Your task to perform on an android device: open app "Spotify: Music and Podcasts" (install if not already installed) Image 0: 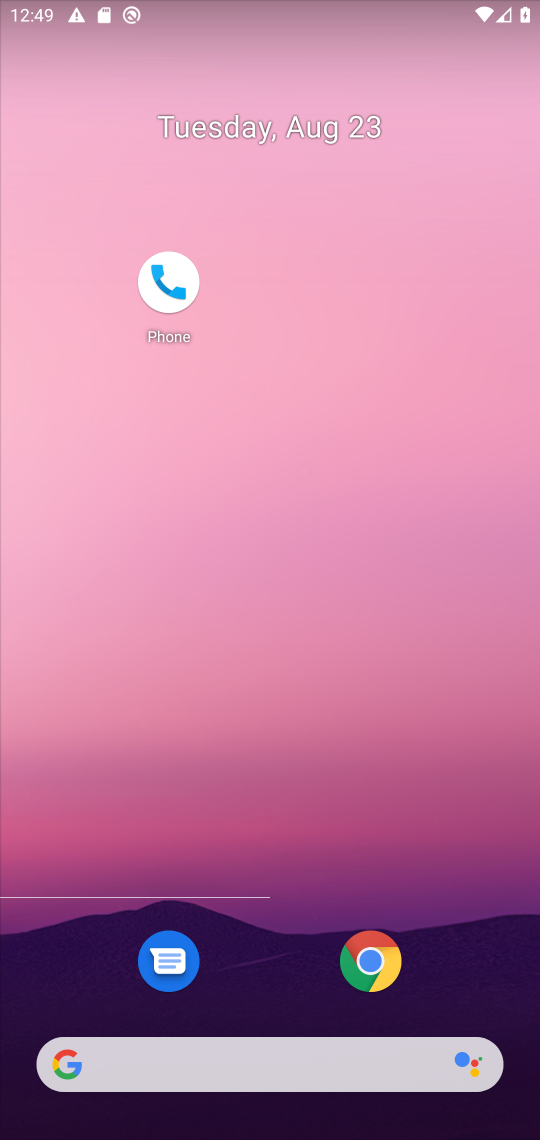
Step 0: drag from (298, 1026) to (319, 177)
Your task to perform on an android device: open app "Spotify: Music and Podcasts" (install if not already installed) Image 1: 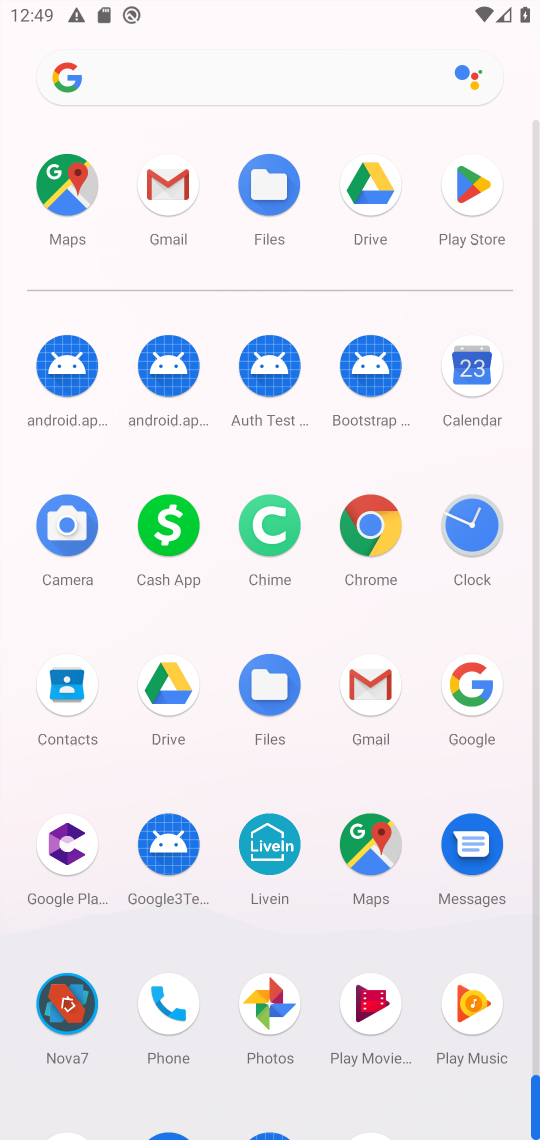
Step 1: click (440, 249)
Your task to perform on an android device: open app "Spotify: Music and Podcasts" (install if not already installed) Image 2: 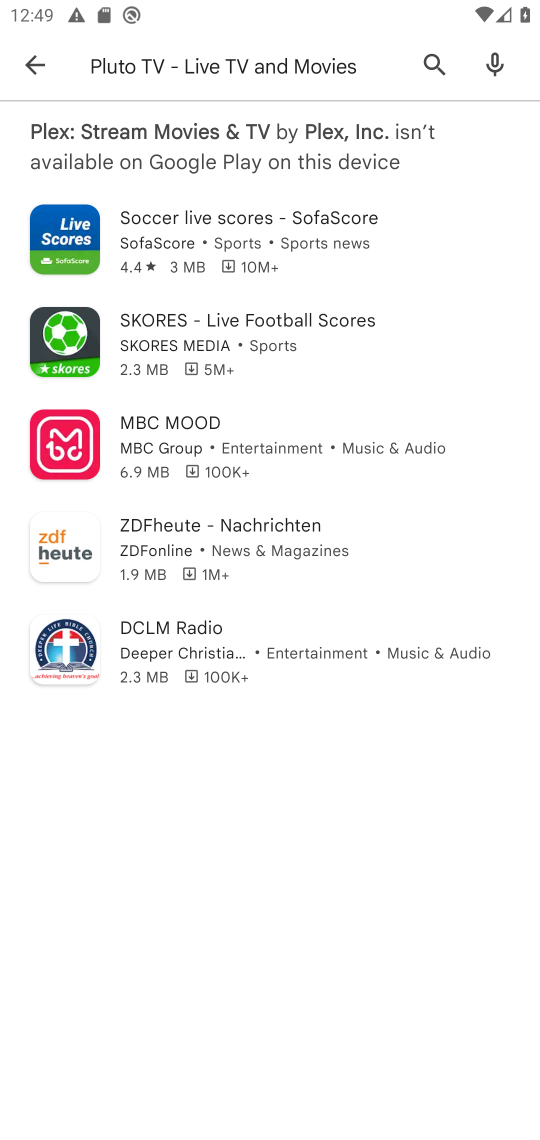
Step 2: click (444, 73)
Your task to perform on an android device: open app "Spotify: Music and Podcasts" (install if not already installed) Image 3: 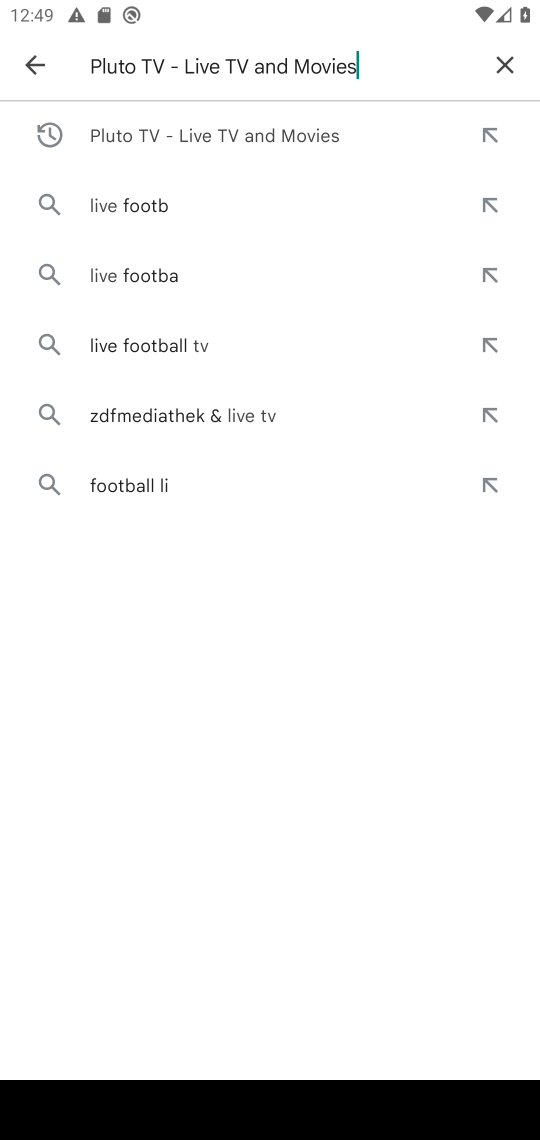
Step 3: click (500, 70)
Your task to perform on an android device: open app "Spotify: Music and Podcasts" (install if not already installed) Image 4: 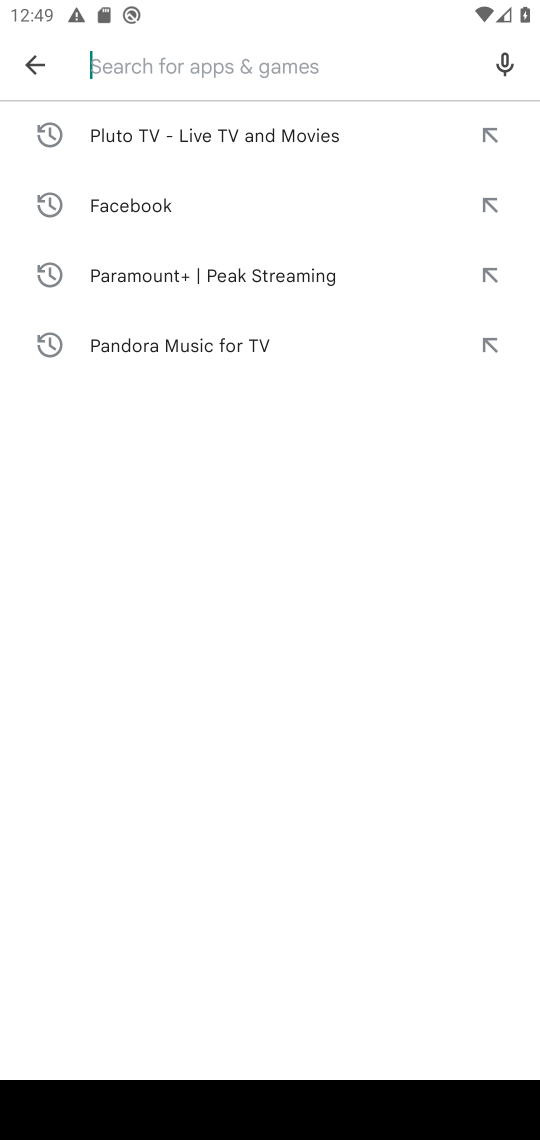
Step 4: type "spotify"
Your task to perform on an android device: open app "Spotify: Music and Podcasts" (install if not already installed) Image 5: 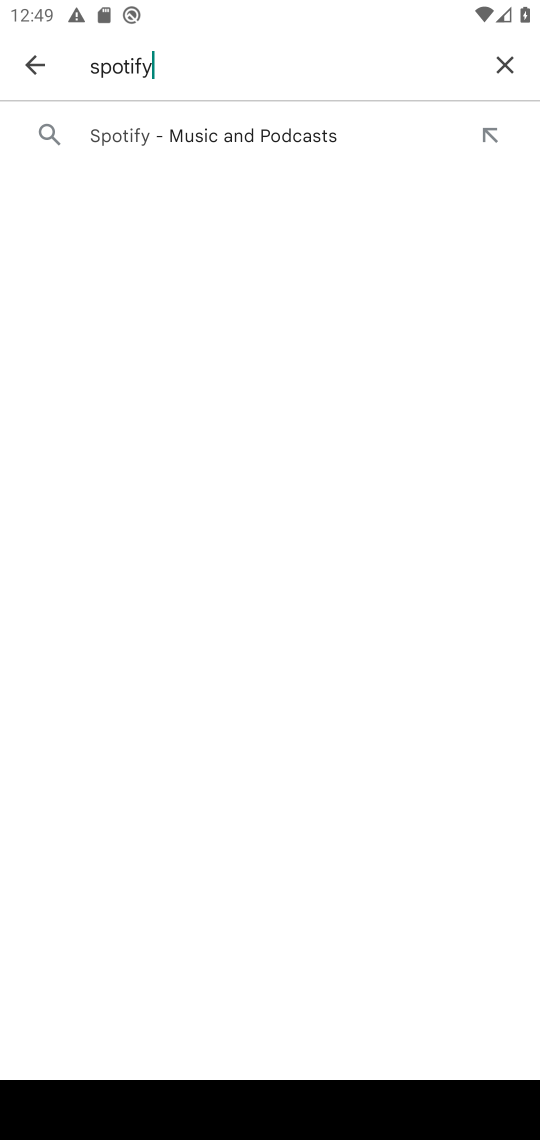
Step 5: click (317, 161)
Your task to perform on an android device: open app "Spotify: Music and Podcasts" (install if not already installed) Image 6: 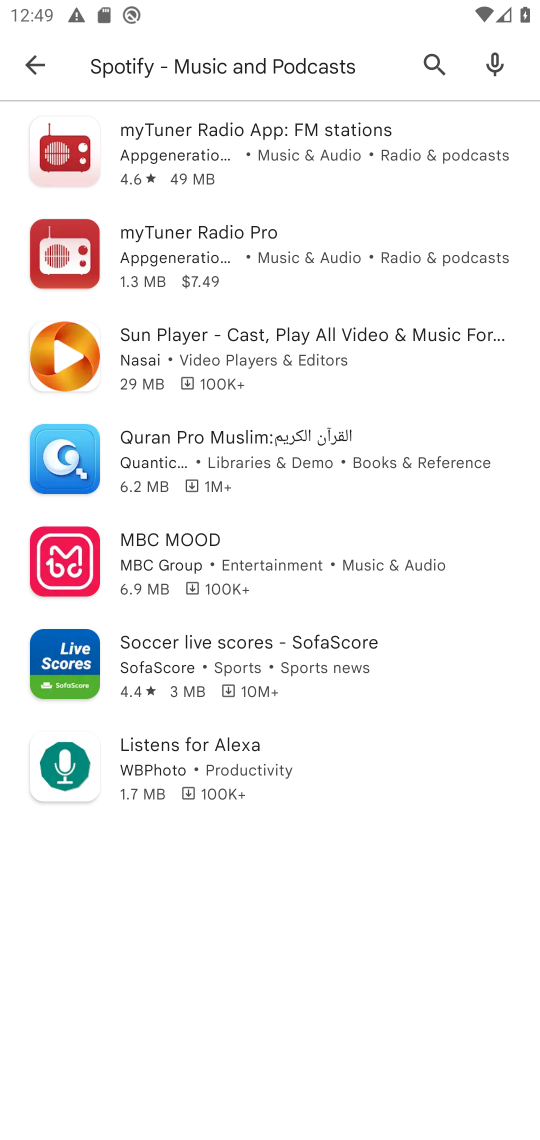
Step 6: task complete